Your task to perform on an android device: turn off picture-in-picture Image 0: 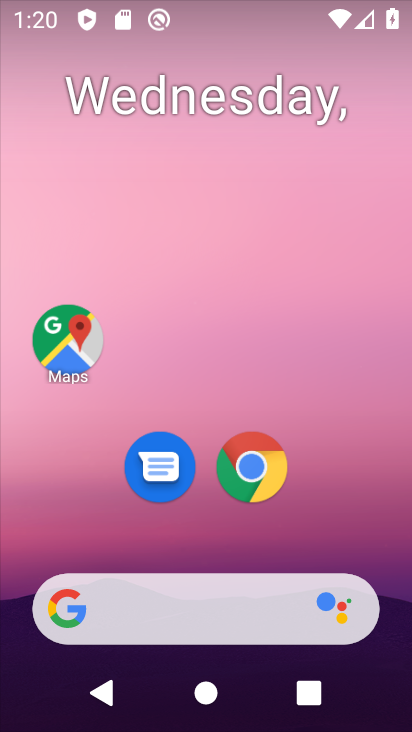
Step 0: drag from (345, 481) to (186, 1)
Your task to perform on an android device: turn off picture-in-picture Image 1: 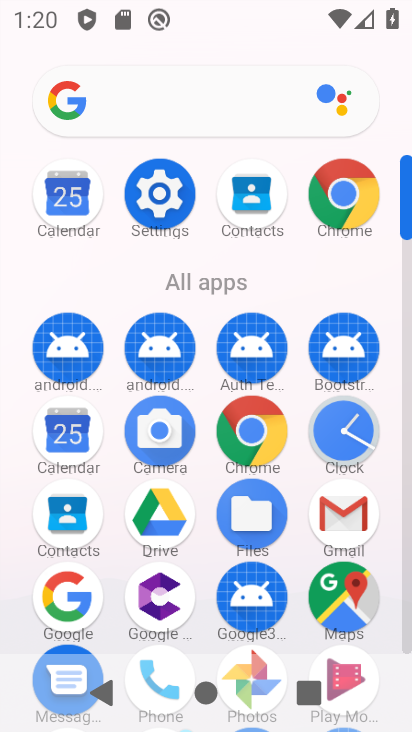
Step 1: click (164, 179)
Your task to perform on an android device: turn off picture-in-picture Image 2: 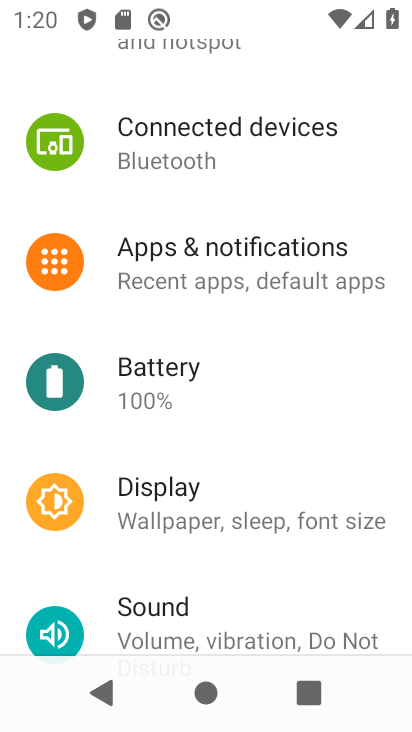
Step 2: click (234, 265)
Your task to perform on an android device: turn off picture-in-picture Image 3: 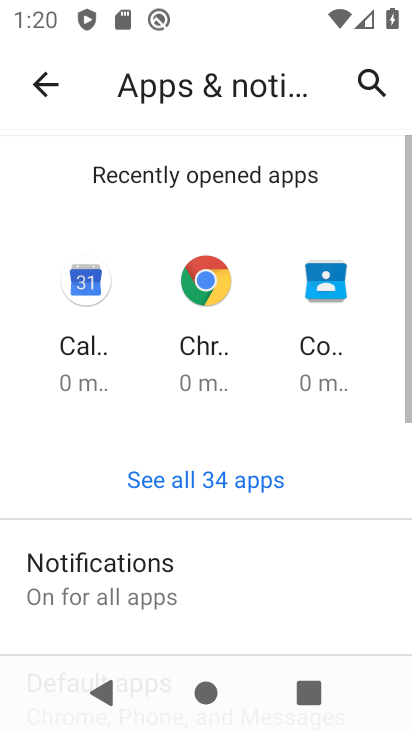
Step 3: drag from (272, 647) to (287, 59)
Your task to perform on an android device: turn off picture-in-picture Image 4: 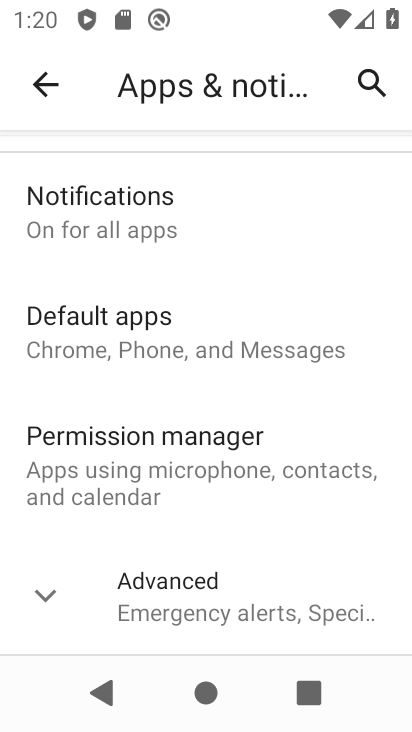
Step 4: click (247, 590)
Your task to perform on an android device: turn off picture-in-picture Image 5: 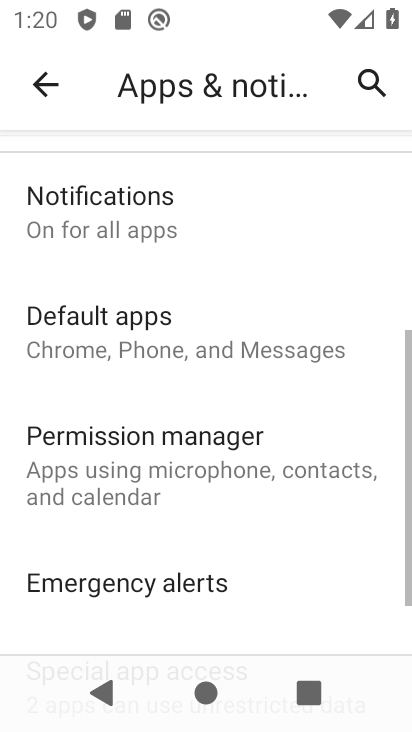
Step 5: drag from (270, 593) to (267, 202)
Your task to perform on an android device: turn off picture-in-picture Image 6: 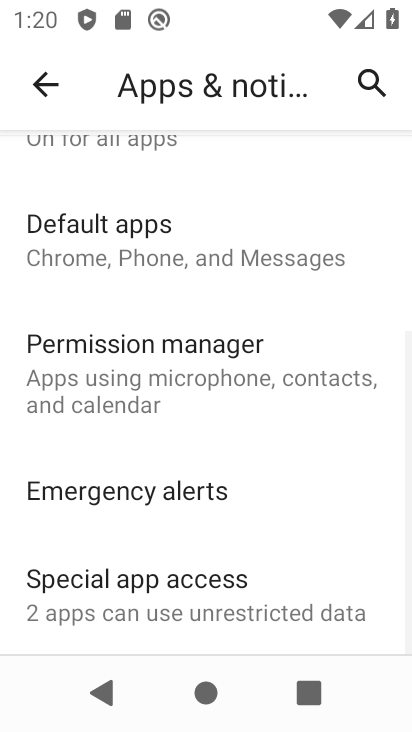
Step 6: click (233, 592)
Your task to perform on an android device: turn off picture-in-picture Image 7: 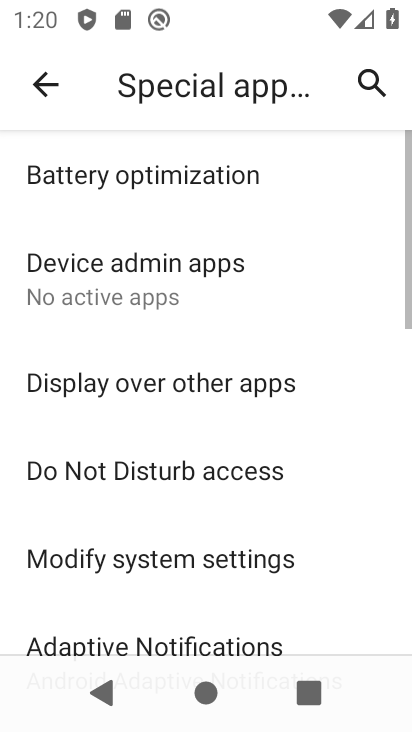
Step 7: drag from (244, 601) to (230, 144)
Your task to perform on an android device: turn off picture-in-picture Image 8: 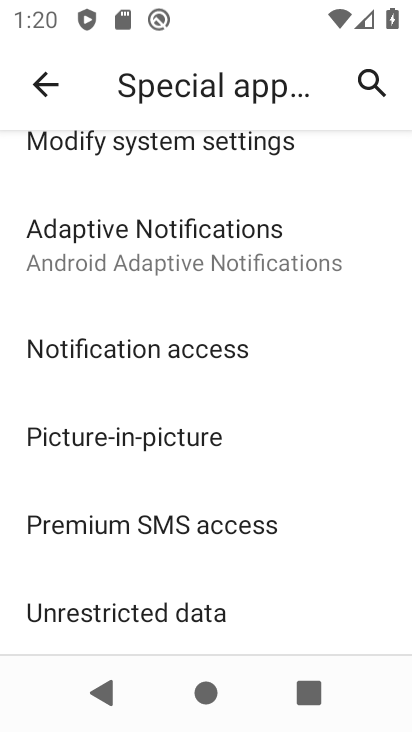
Step 8: click (182, 445)
Your task to perform on an android device: turn off picture-in-picture Image 9: 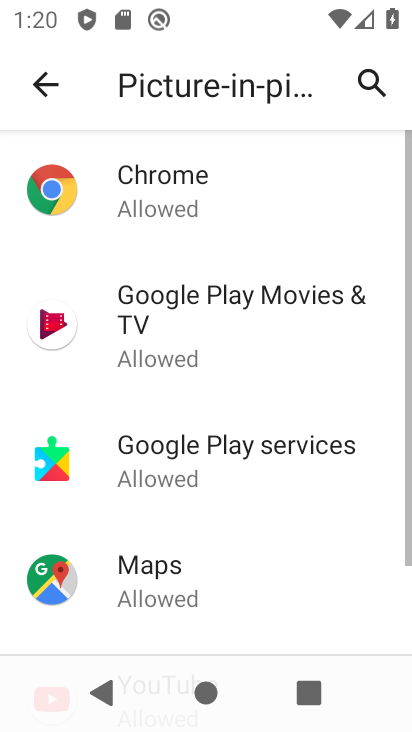
Step 9: click (282, 454)
Your task to perform on an android device: turn off picture-in-picture Image 10: 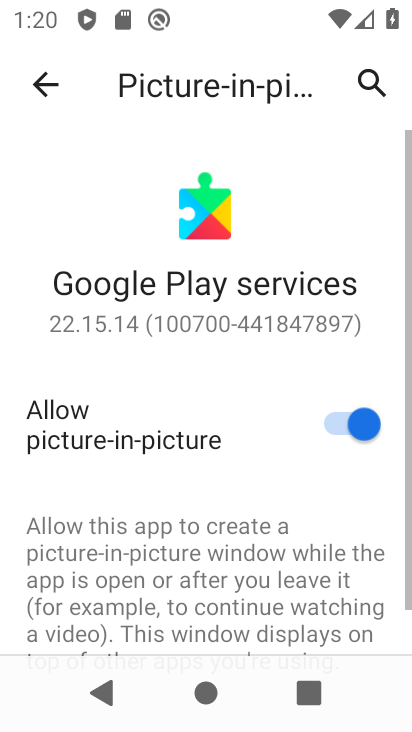
Step 10: click (359, 412)
Your task to perform on an android device: turn off picture-in-picture Image 11: 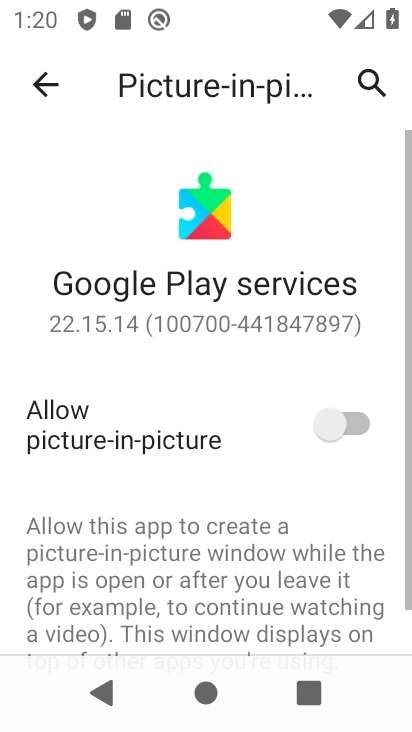
Step 11: task complete